Your task to perform on an android device: Open Maps and search for coffee Image 0: 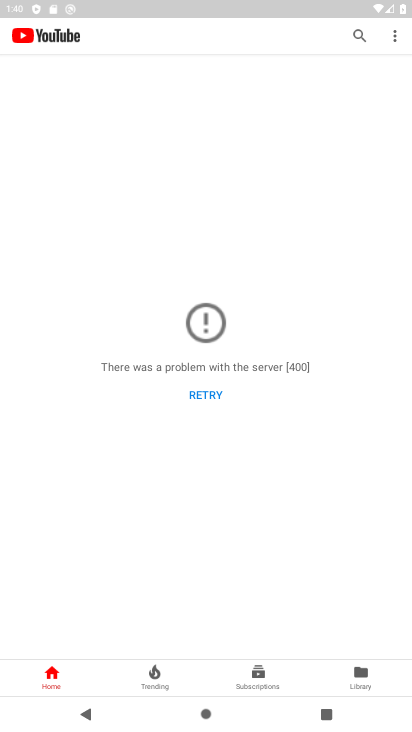
Step 0: press home button
Your task to perform on an android device: Open Maps and search for coffee Image 1: 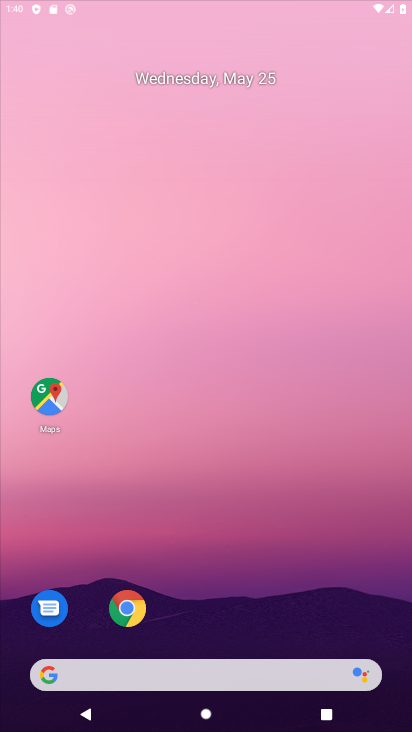
Step 1: click (198, 395)
Your task to perform on an android device: Open Maps and search for coffee Image 2: 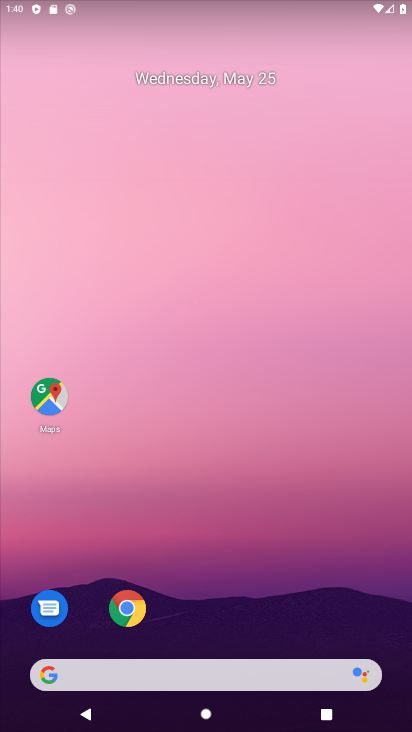
Step 2: click (188, 215)
Your task to perform on an android device: Open Maps and search for coffee Image 3: 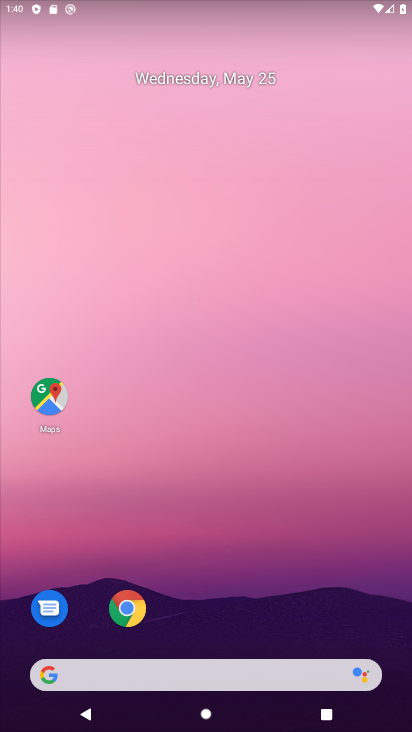
Step 3: click (45, 394)
Your task to perform on an android device: Open Maps and search for coffee Image 4: 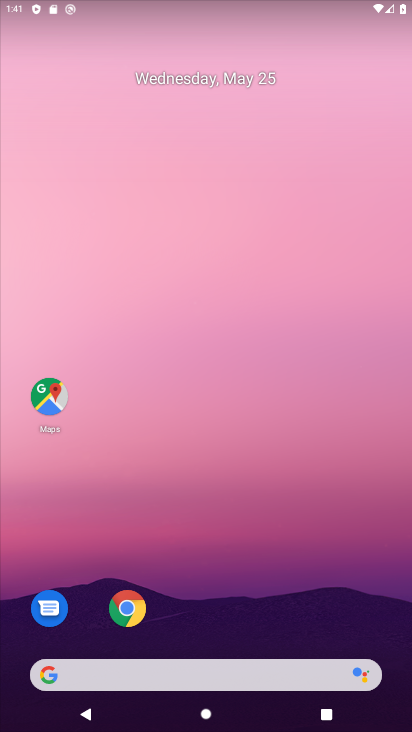
Step 4: click (45, 394)
Your task to perform on an android device: Open Maps and search for coffee Image 5: 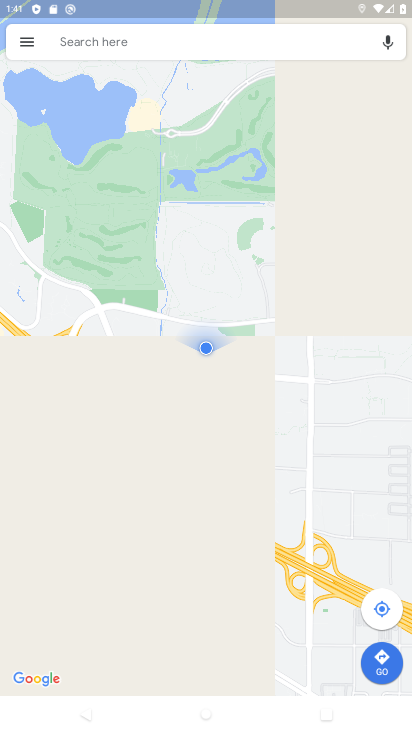
Step 5: click (103, 41)
Your task to perform on an android device: Open Maps and search for coffee Image 6: 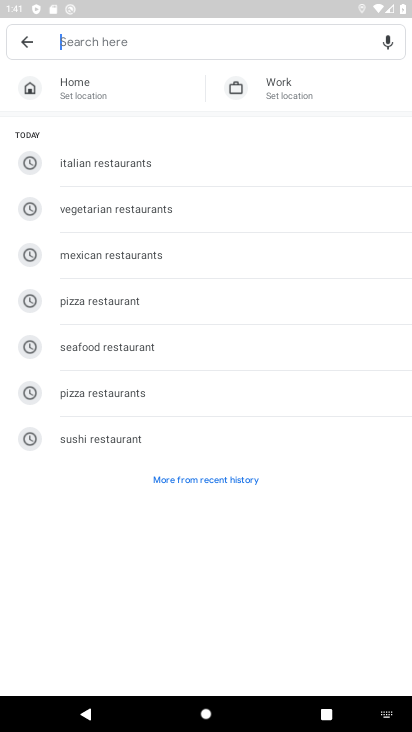
Step 6: type "coffee"
Your task to perform on an android device: Open Maps and search for coffee Image 7: 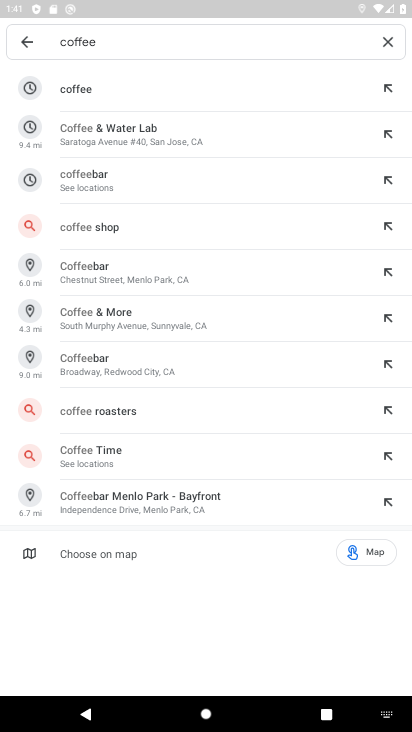
Step 7: click (66, 83)
Your task to perform on an android device: Open Maps and search for coffee Image 8: 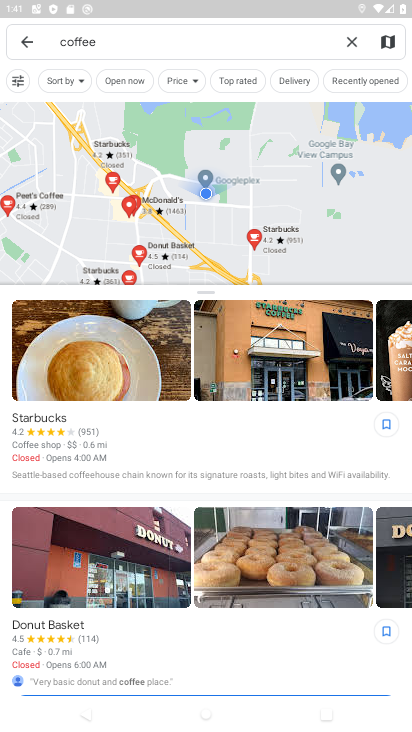
Step 8: task complete